Your task to perform on an android device: Show me popular games on the Play Store Image 0: 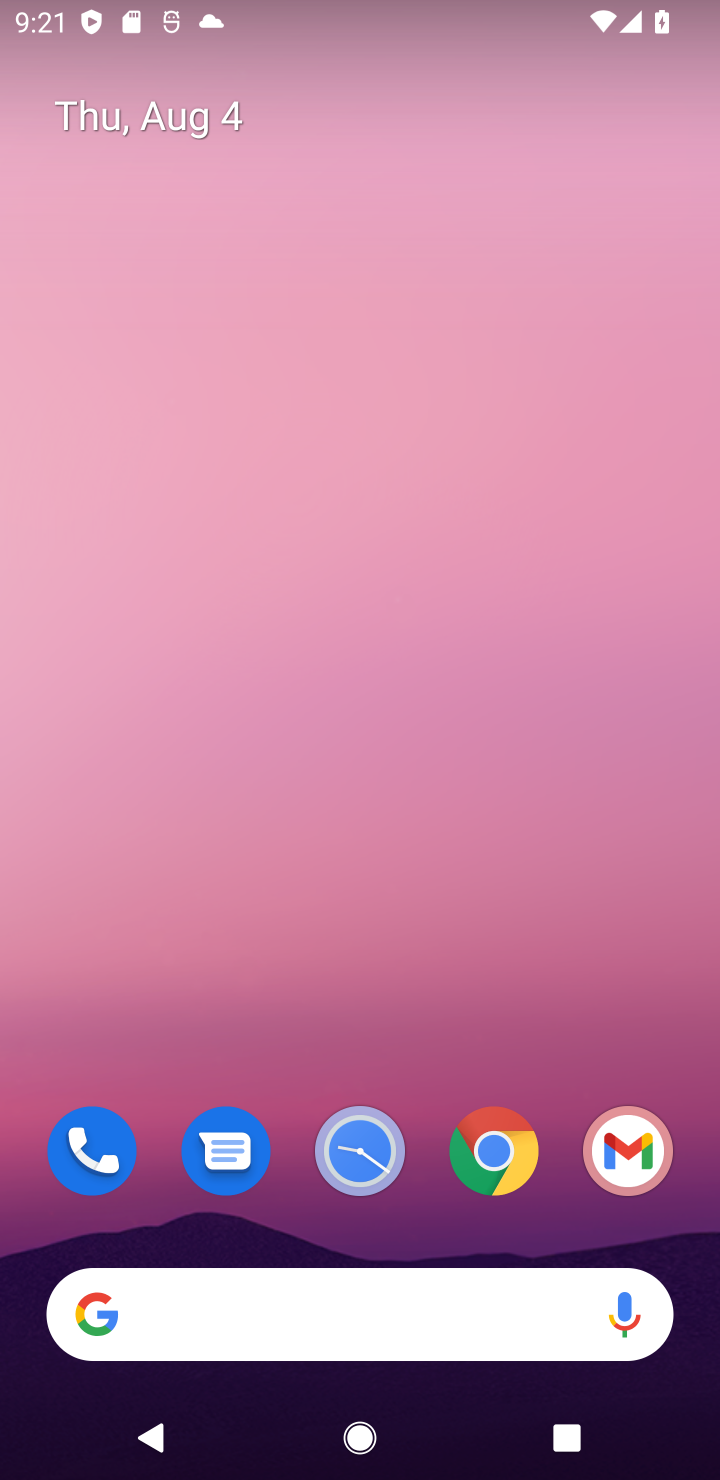
Step 0: drag from (394, 1010) to (430, 60)
Your task to perform on an android device: Show me popular games on the Play Store Image 1: 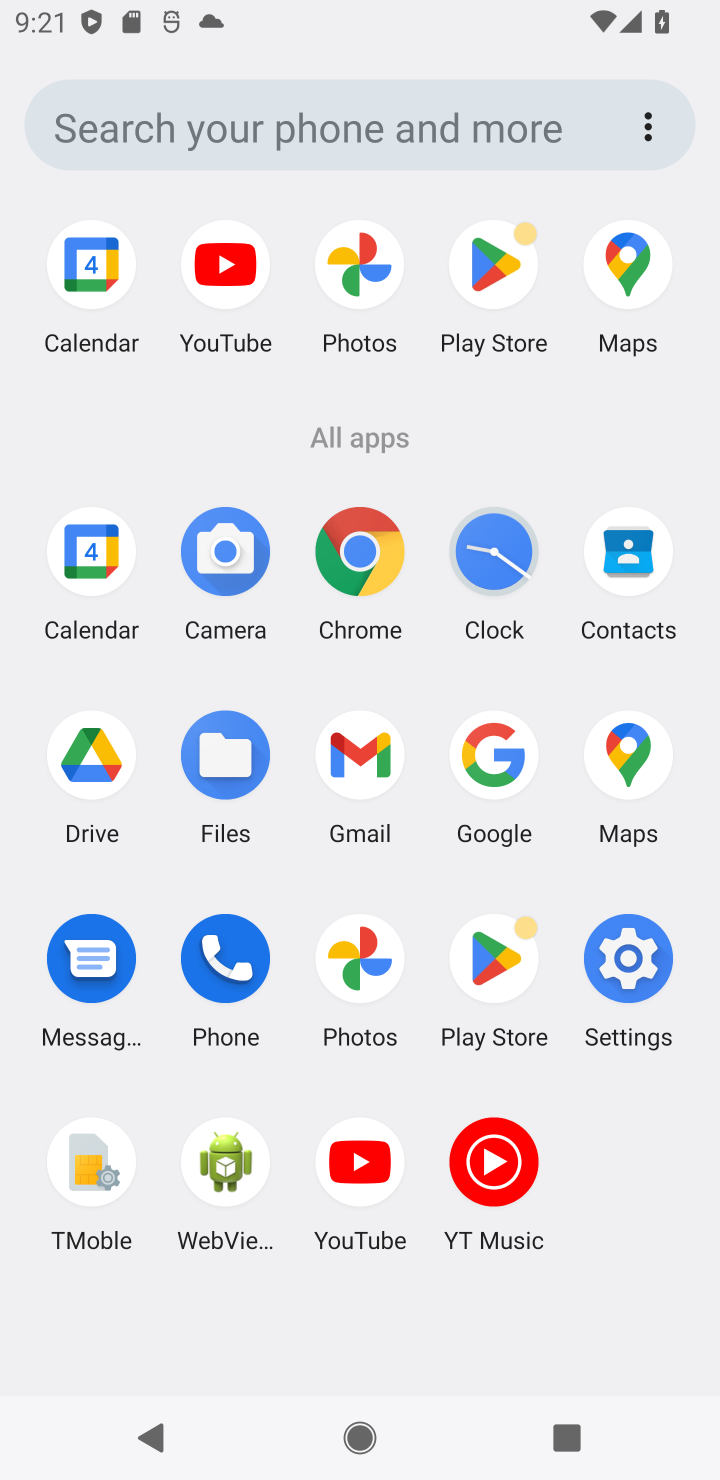
Step 1: click (520, 977)
Your task to perform on an android device: Show me popular games on the Play Store Image 2: 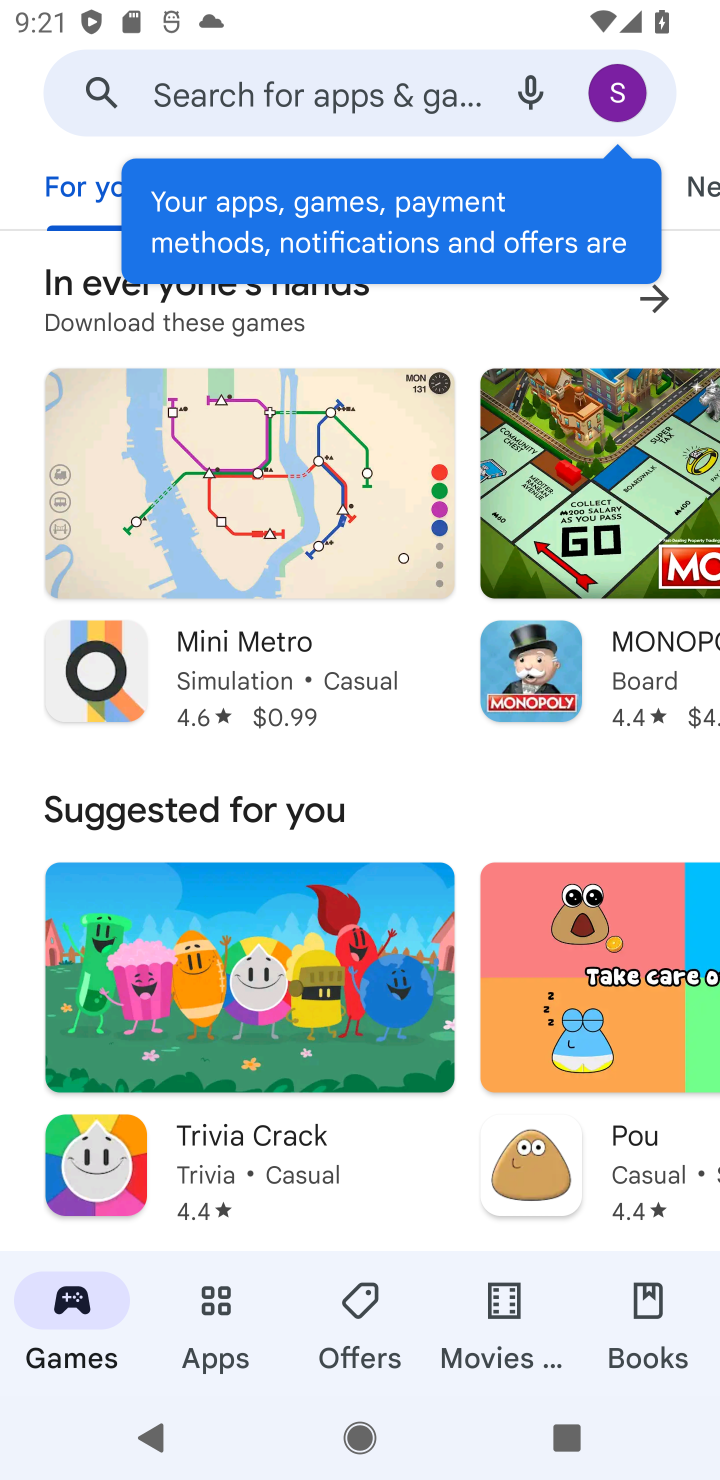
Step 2: click (229, 230)
Your task to perform on an android device: Show me popular games on the Play Store Image 3: 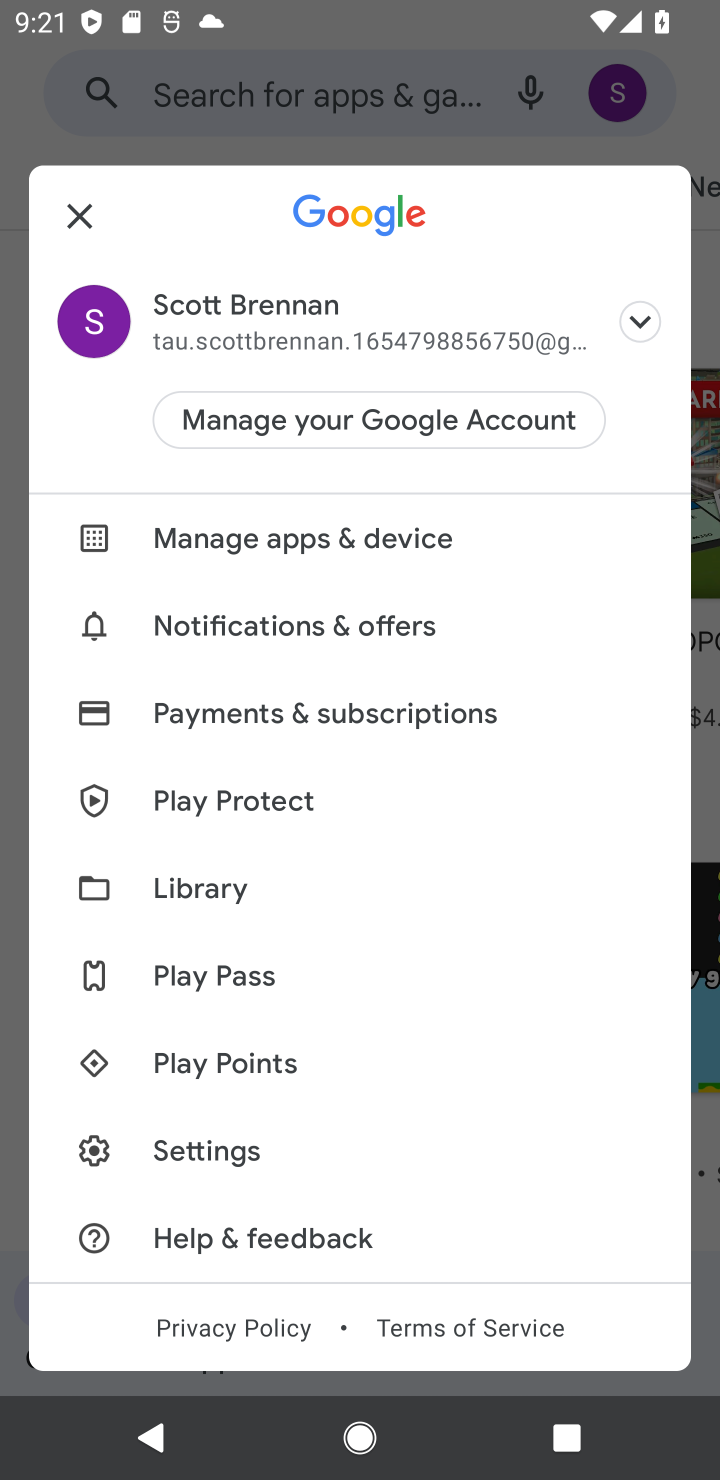
Step 3: click (254, 190)
Your task to perform on an android device: Show me popular games on the Play Store Image 4: 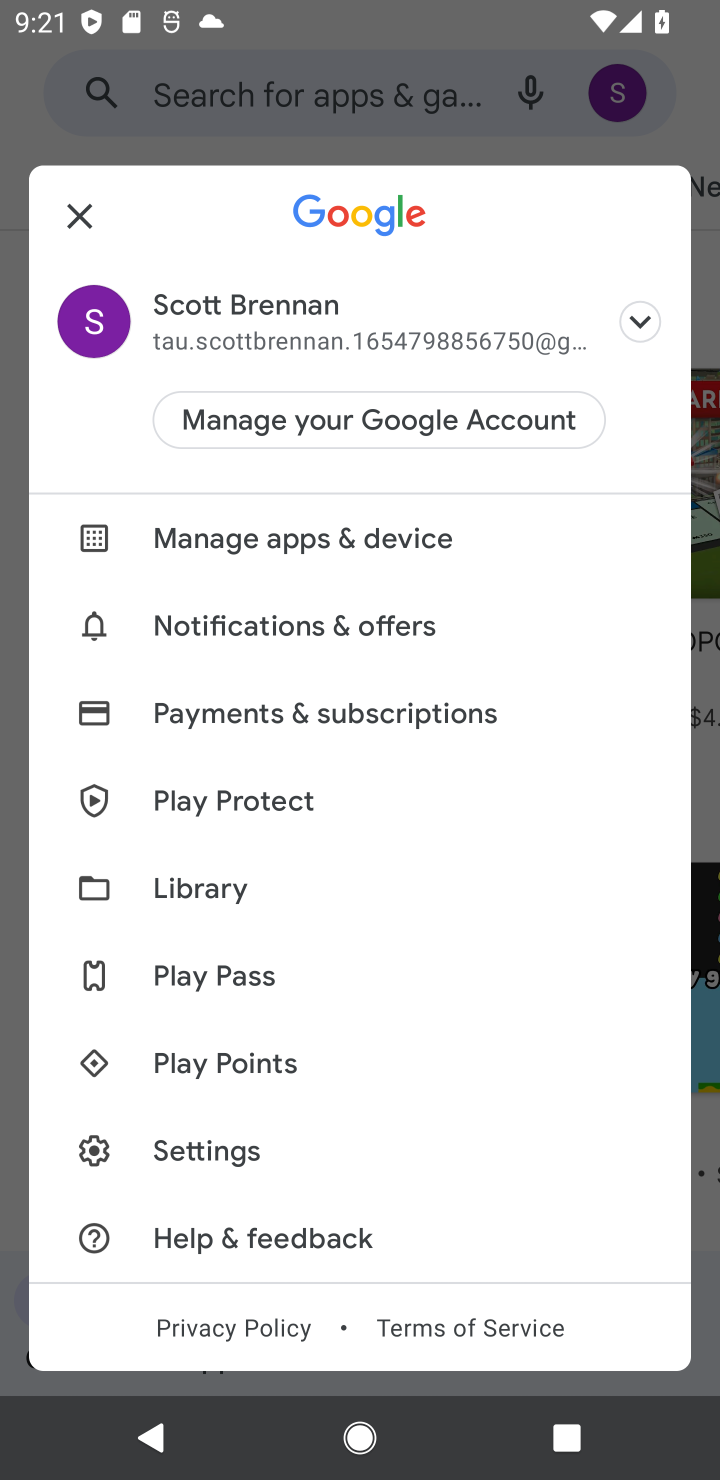
Step 4: click (241, 138)
Your task to perform on an android device: Show me popular games on the Play Store Image 5: 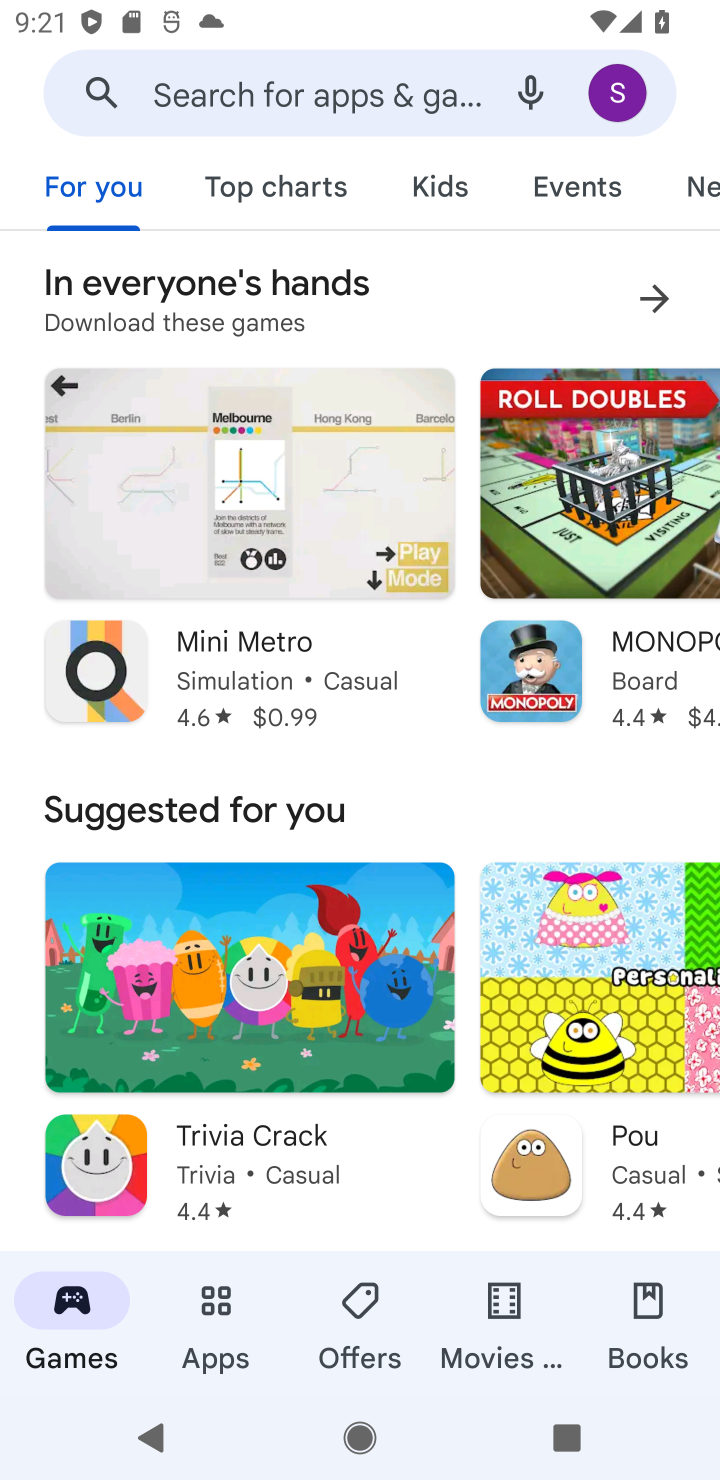
Step 5: click (284, 203)
Your task to perform on an android device: Show me popular games on the Play Store Image 6: 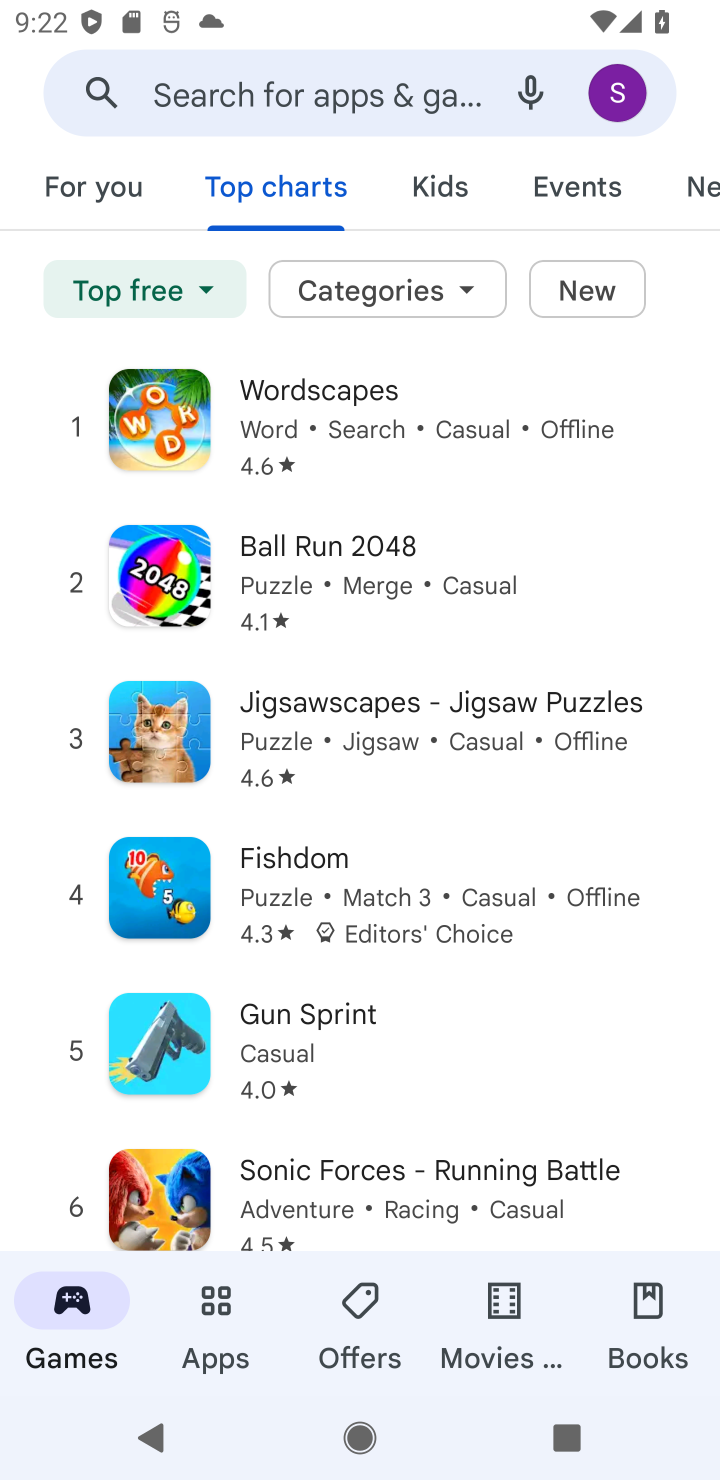
Step 6: task complete